Your task to perform on an android device: Go to location settings Image 0: 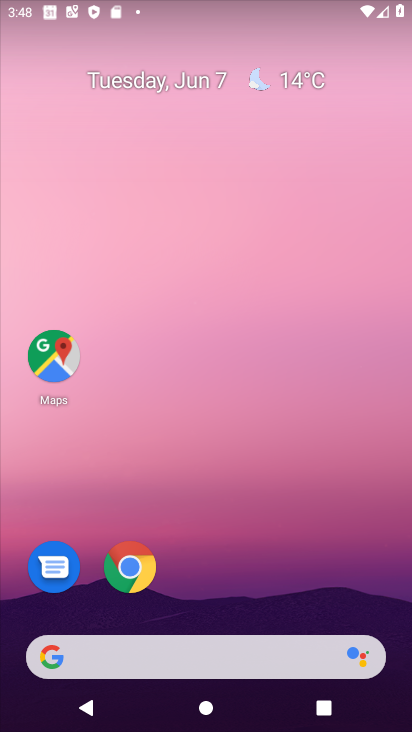
Step 0: drag from (202, 606) to (189, 202)
Your task to perform on an android device: Go to location settings Image 1: 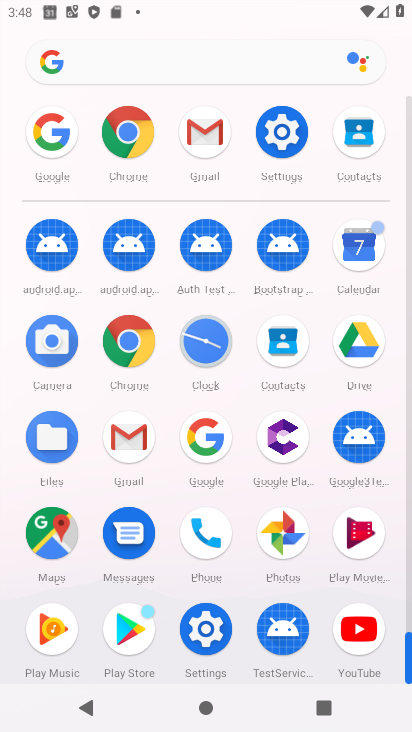
Step 1: click (271, 141)
Your task to perform on an android device: Go to location settings Image 2: 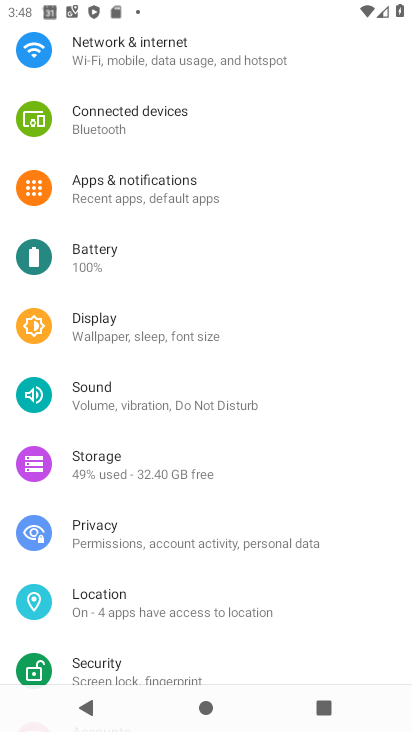
Step 2: click (151, 601)
Your task to perform on an android device: Go to location settings Image 3: 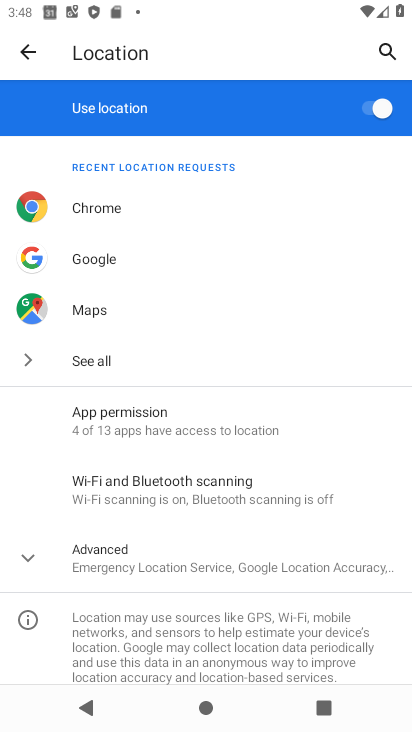
Step 3: task complete